Your task to perform on an android device: change the clock display to analog Image 0: 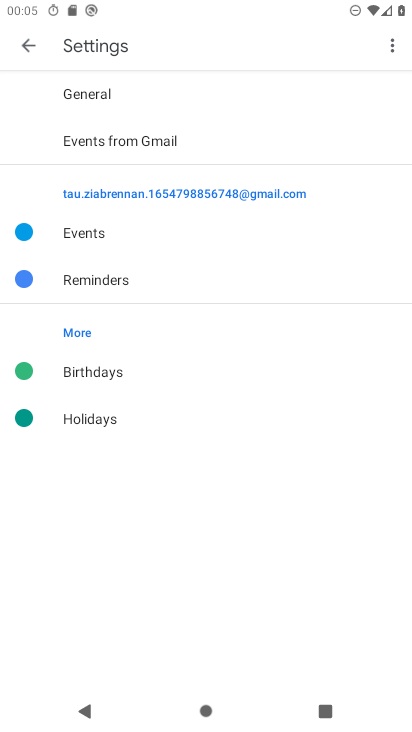
Step 0: press home button
Your task to perform on an android device: change the clock display to analog Image 1: 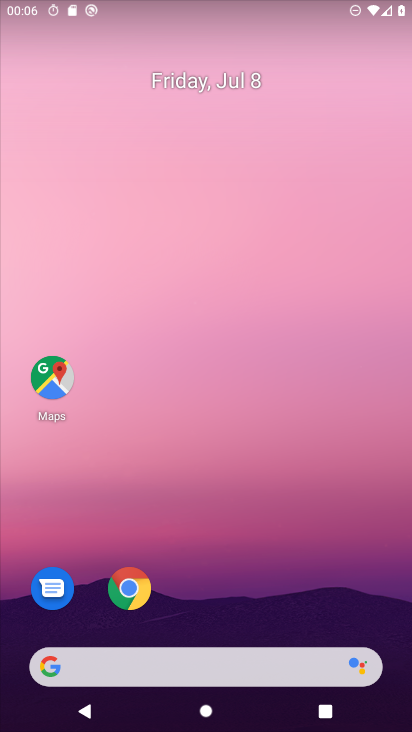
Step 1: drag from (285, 598) to (268, 94)
Your task to perform on an android device: change the clock display to analog Image 2: 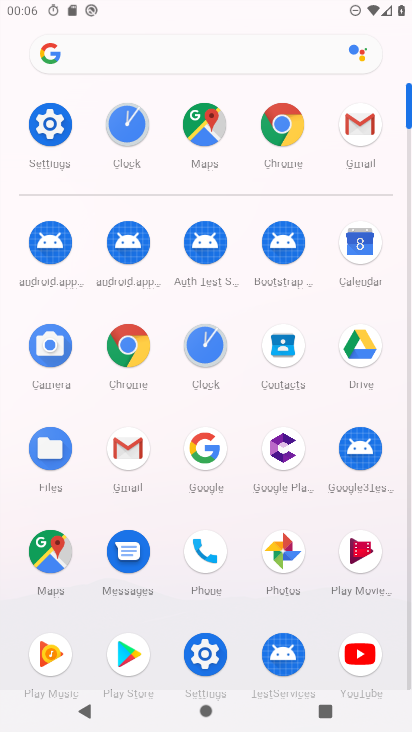
Step 2: click (205, 343)
Your task to perform on an android device: change the clock display to analog Image 3: 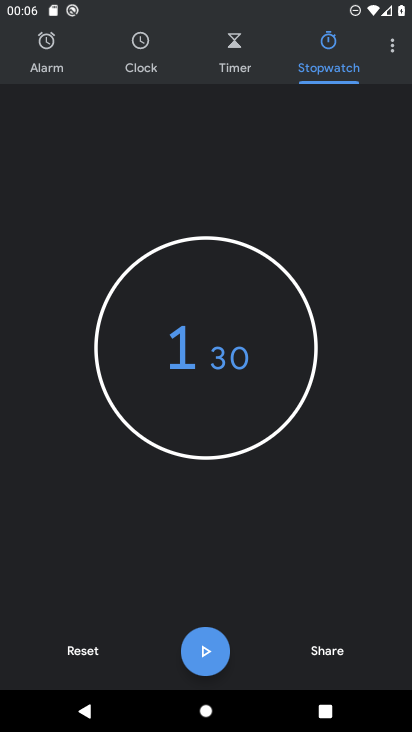
Step 3: click (394, 43)
Your task to perform on an android device: change the clock display to analog Image 4: 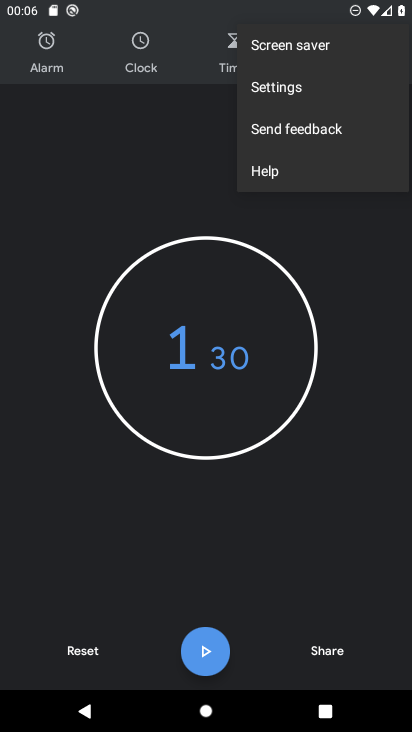
Step 4: click (273, 93)
Your task to perform on an android device: change the clock display to analog Image 5: 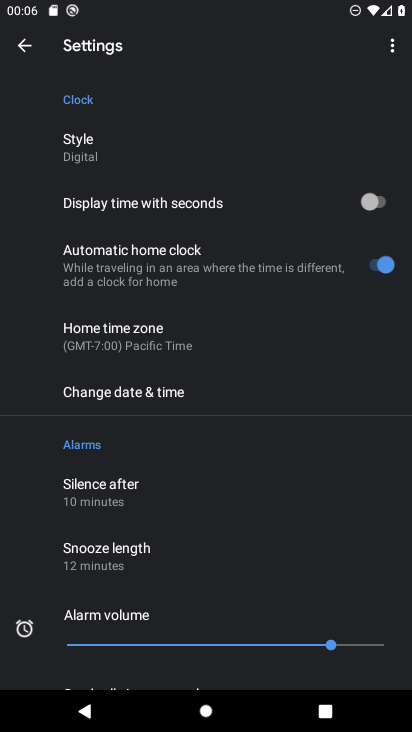
Step 5: click (99, 145)
Your task to perform on an android device: change the clock display to analog Image 6: 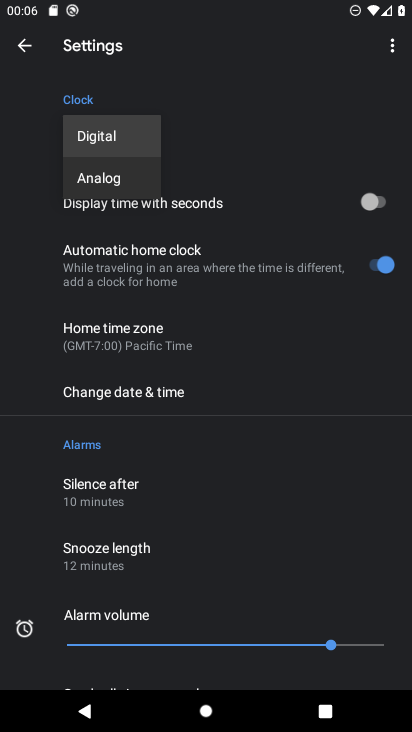
Step 6: click (103, 177)
Your task to perform on an android device: change the clock display to analog Image 7: 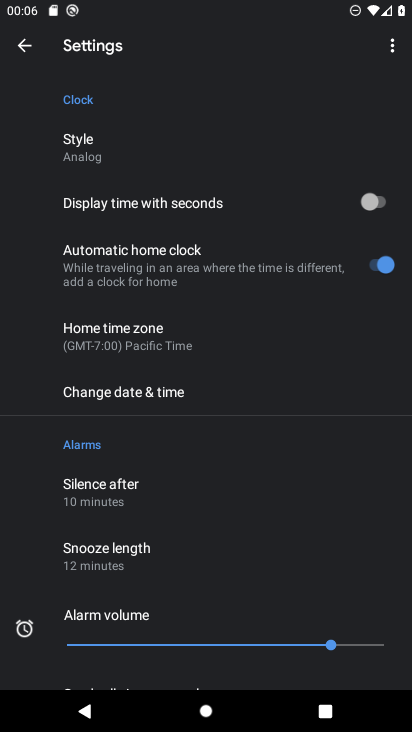
Step 7: task complete